Your task to perform on an android device: Search for seafood restaurants on Google Maps Image 0: 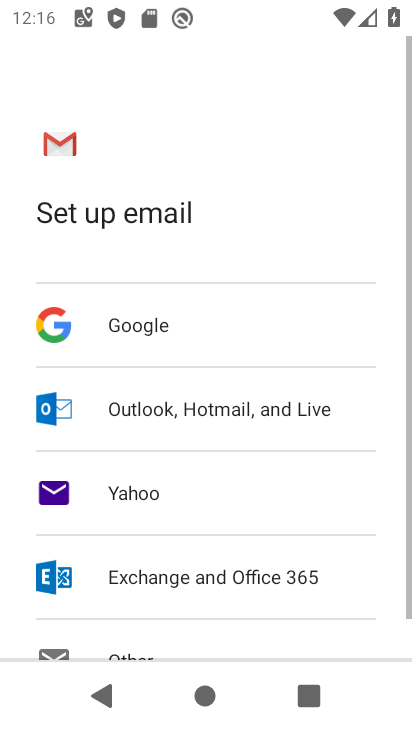
Step 0: press back button
Your task to perform on an android device: Search for seafood restaurants on Google Maps Image 1: 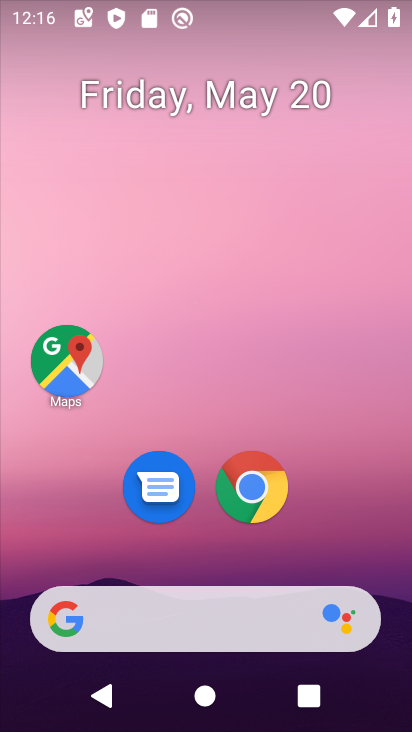
Step 1: click (46, 354)
Your task to perform on an android device: Search for seafood restaurants on Google Maps Image 2: 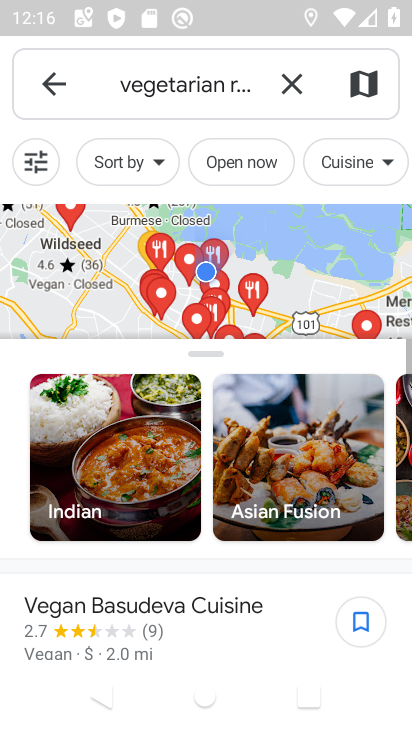
Step 2: click (287, 72)
Your task to perform on an android device: Search for seafood restaurants on Google Maps Image 3: 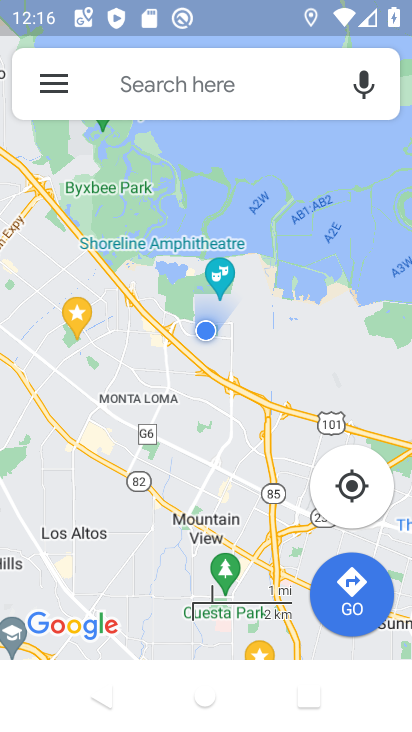
Step 3: click (172, 90)
Your task to perform on an android device: Search for seafood restaurants on Google Maps Image 4: 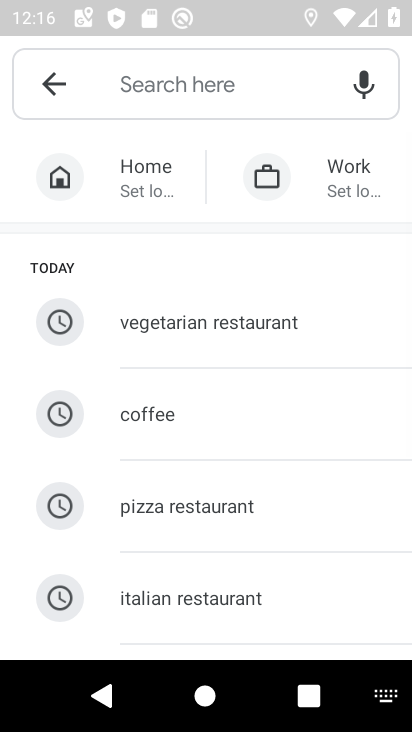
Step 4: drag from (169, 587) to (248, 156)
Your task to perform on an android device: Search for seafood restaurants on Google Maps Image 5: 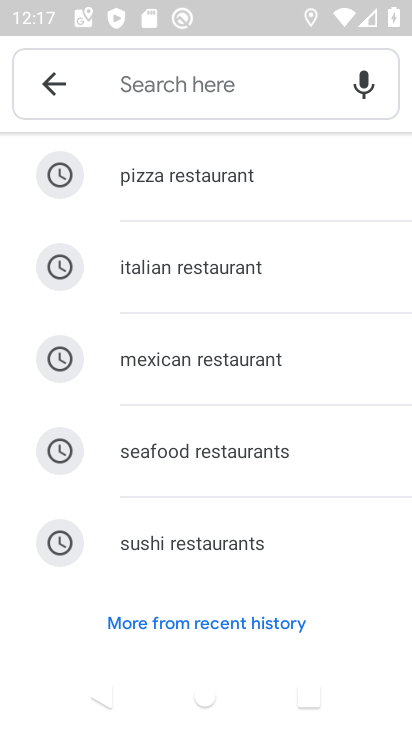
Step 5: click (190, 458)
Your task to perform on an android device: Search for seafood restaurants on Google Maps Image 6: 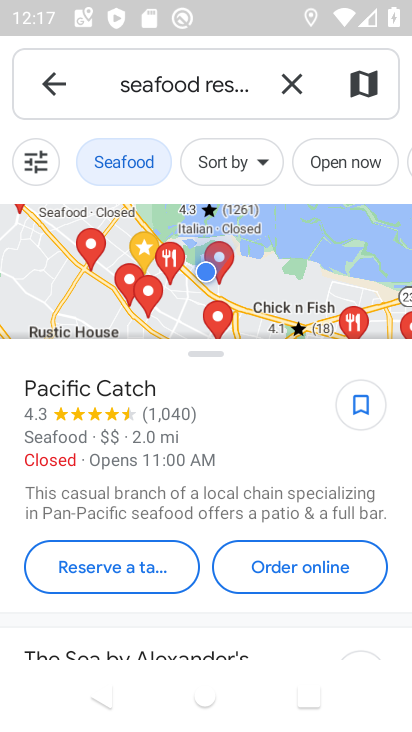
Step 6: task complete